Your task to perform on an android device: toggle sleep mode Image 0: 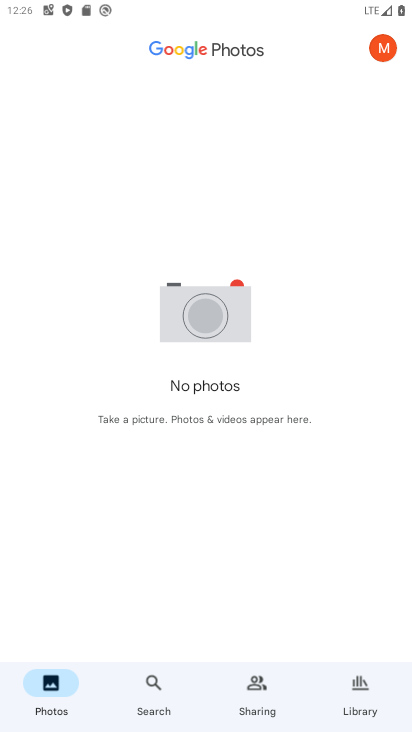
Step 0: press home button
Your task to perform on an android device: toggle sleep mode Image 1: 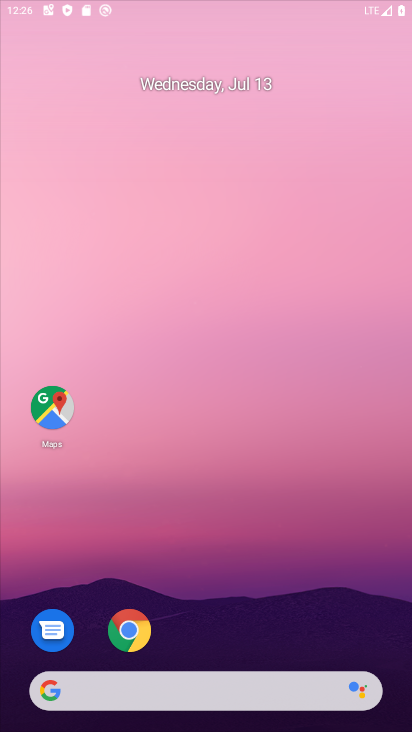
Step 1: drag from (402, 682) to (0, 77)
Your task to perform on an android device: toggle sleep mode Image 2: 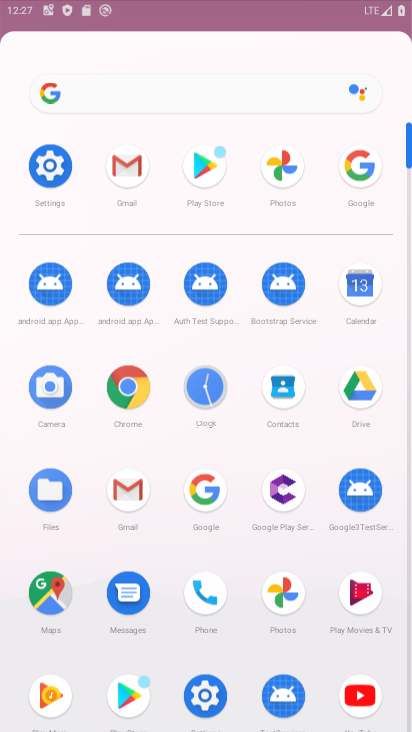
Step 2: click (40, 140)
Your task to perform on an android device: toggle sleep mode Image 3: 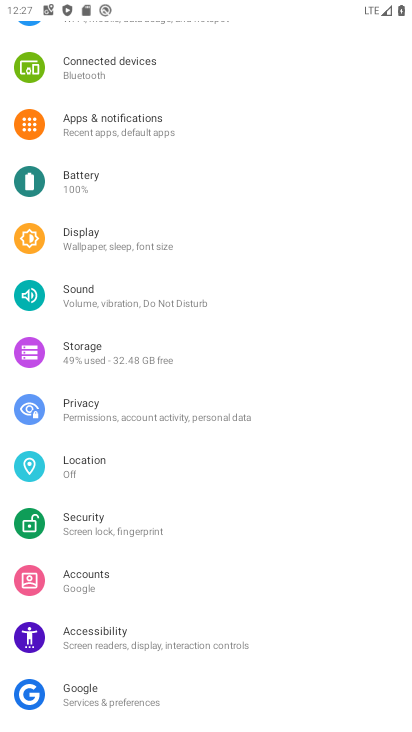
Step 3: task complete